Your task to perform on an android device: star an email in the gmail app Image 0: 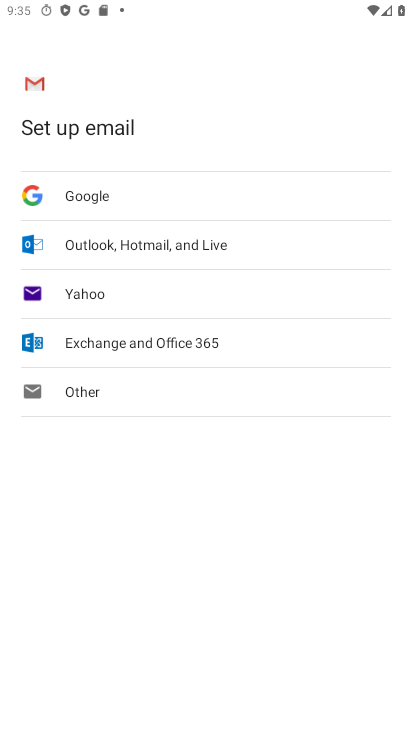
Step 0: press home button
Your task to perform on an android device: star an email in the gmail app Image 1: 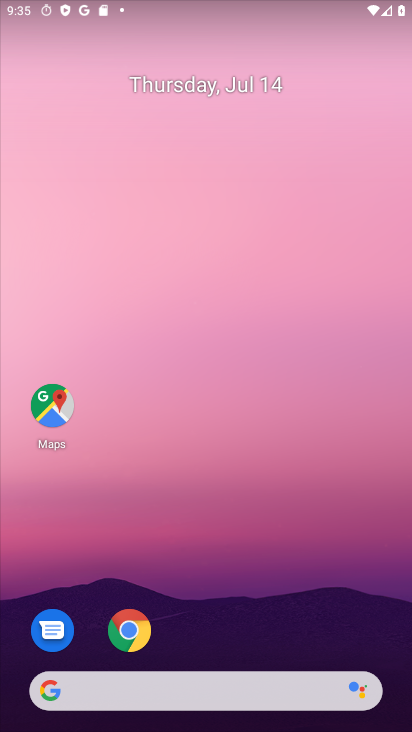
Step 1: drag from (19, 708) to (159, 187)
Your task to perform on an android device: star an email in the gmail app Image 2: 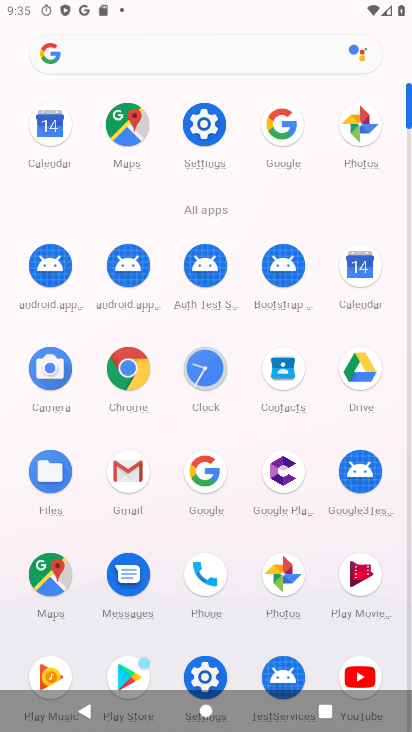
Step 2: click (175, 461)
Your task to perform on an android device: star an email in the gmail app Image 3: 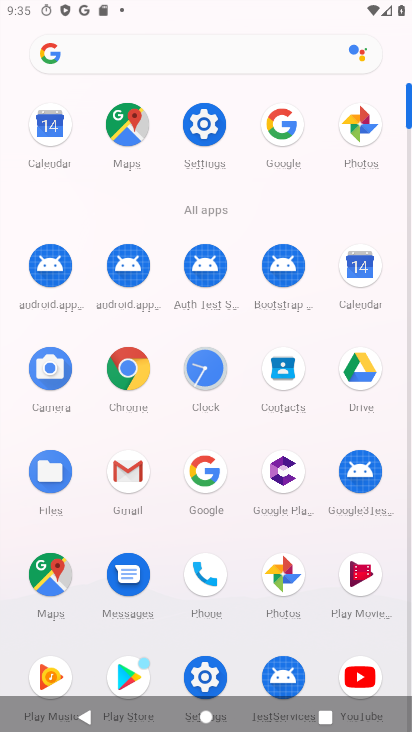
Step 3: click (140, 470)
Your task to perform on an android device: star an email in the gmail app Image 4: 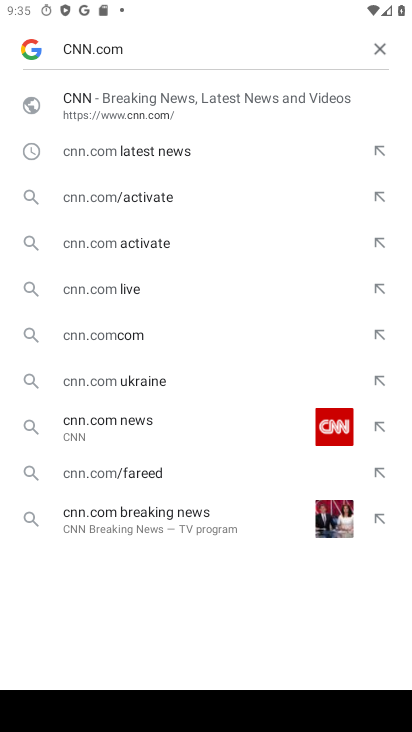
Step 4: press home button
Your task to perform on an android device: star an email in the gmail app Image 5: 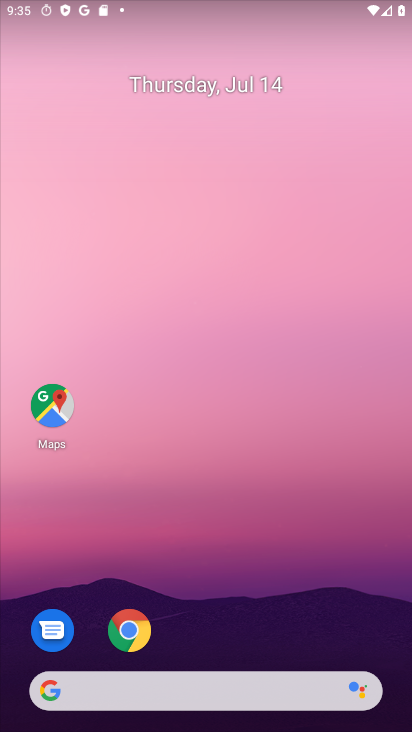
Step 5: drag from (46, 685) to (183, 134)
Your task to perform on an android device: star an email in the gmail app Image 6: 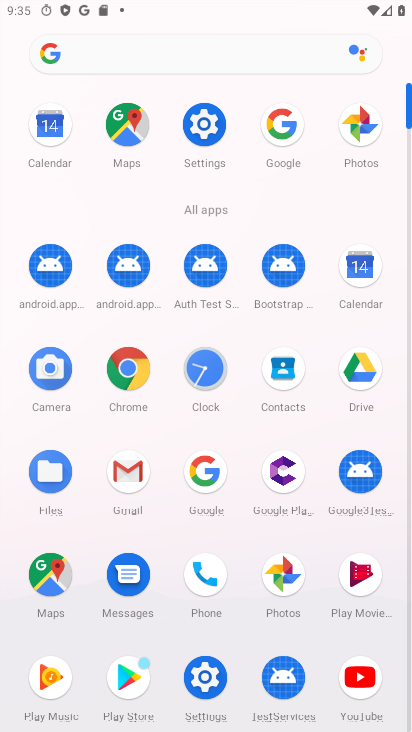
Step 6: click (125, 473)
Your task to perform on an android device: star an email in the gmail app Image 7: 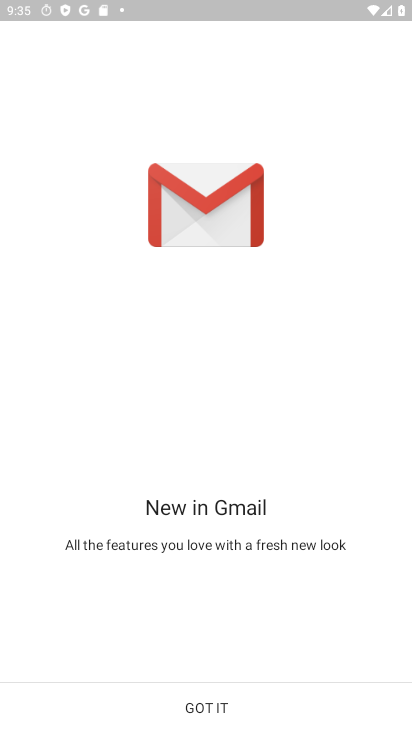
Step 7: click (203, 699)
Your task to perform on an android device: star an email in the gmail app Image 8: 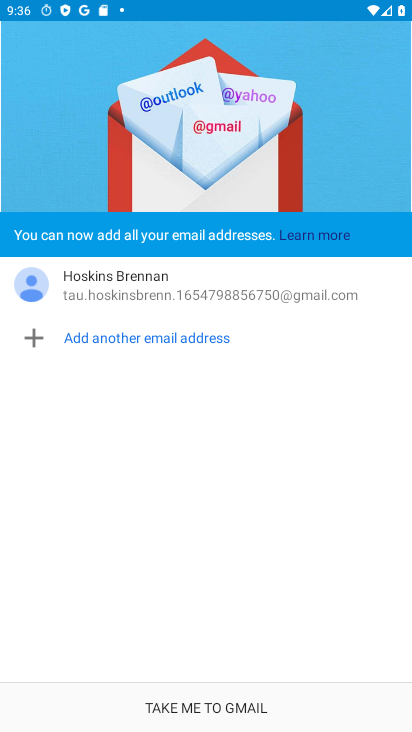
Step 8: click (199, 693)
Your task to perform on an android device: star an email in the gmail app Image 9: 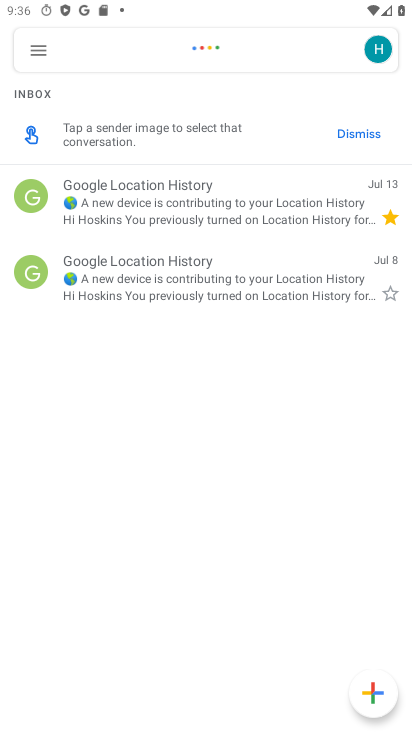
Step 9: click (28, 44)
Your task to perform on an android device: star an email in the gmail app Image 10: 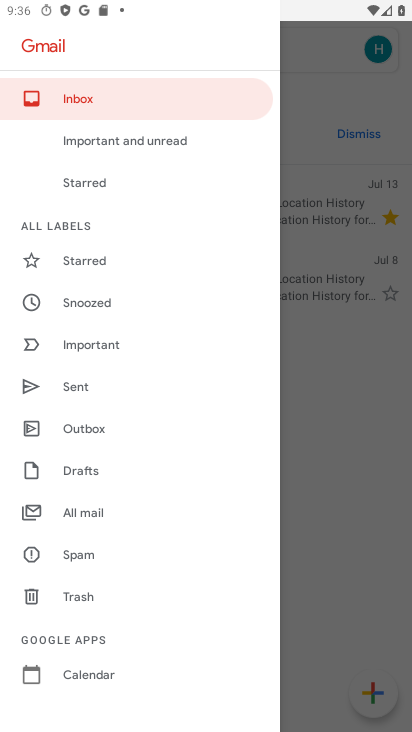
Step 10: click (86, 262)
Your task to perform on an android device: star an email in the gmail app Image 11: 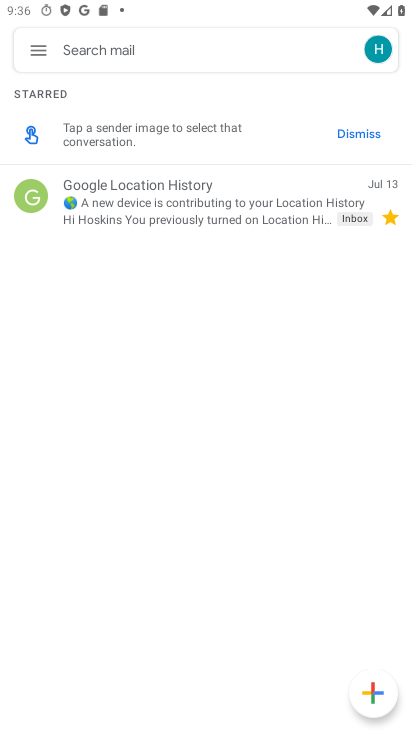
Step 11: task complete